Your task to perform on an android device: Is it going to rain tomorrow? Image 0: 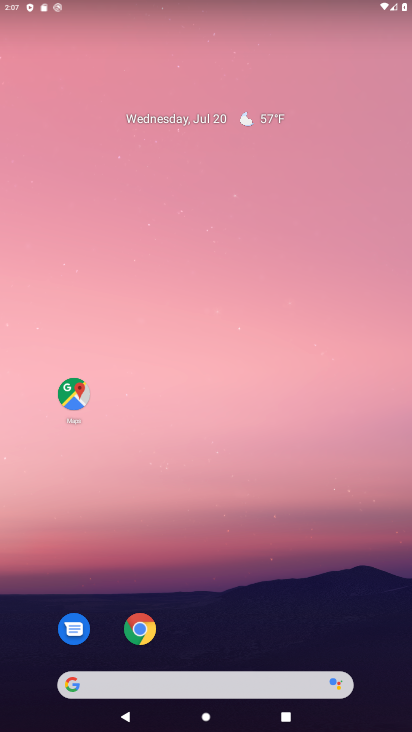
Step 0: drag from (220, 622) to (222, 180)
Your task to perform on an android device: Is it going to rain tomorrow? Image 1: 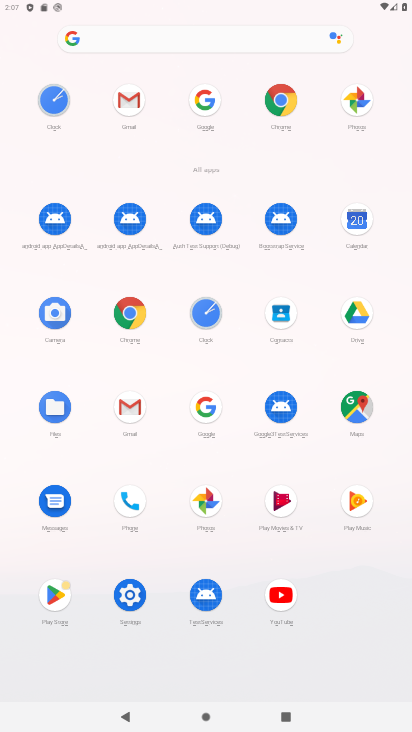
Step 1: click (222, 114)
Your task to perform on an android device: Is it going to rain tomorrow? Image 2: 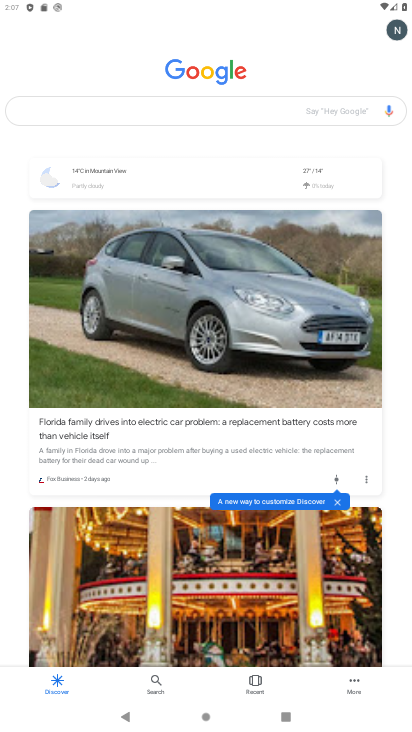
Step 2: click (146, 113)
Your task to perform on an android device: Is it going to rain tomorrow? Image 3: 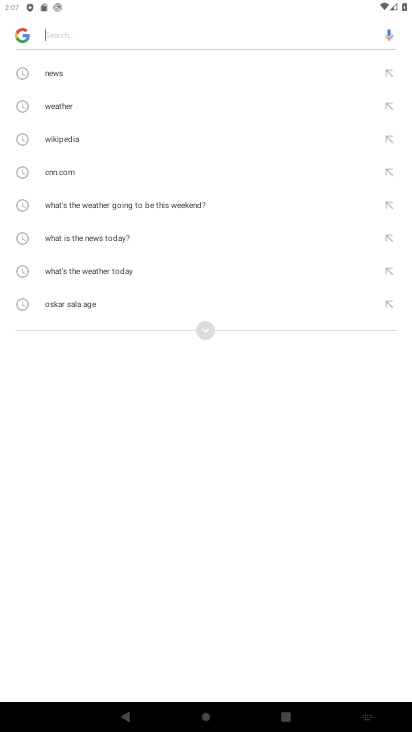
Step 3: click (69, 111)
Your task to perform on an android device: Is it going to rain tomorrow? Image 4: 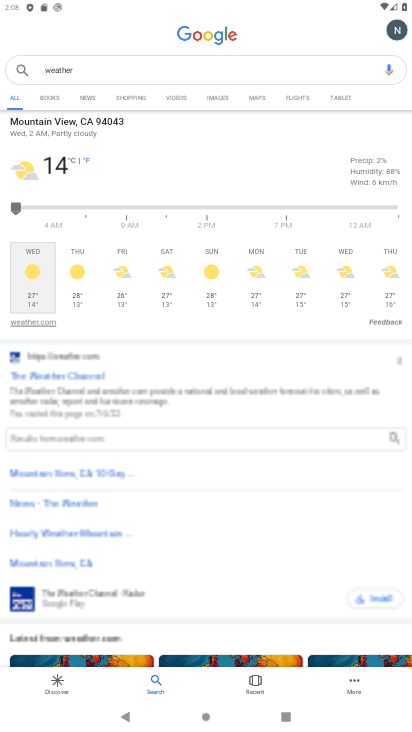
Step 4: task complete